Your task to perform on an android device: Open Google Image 0: 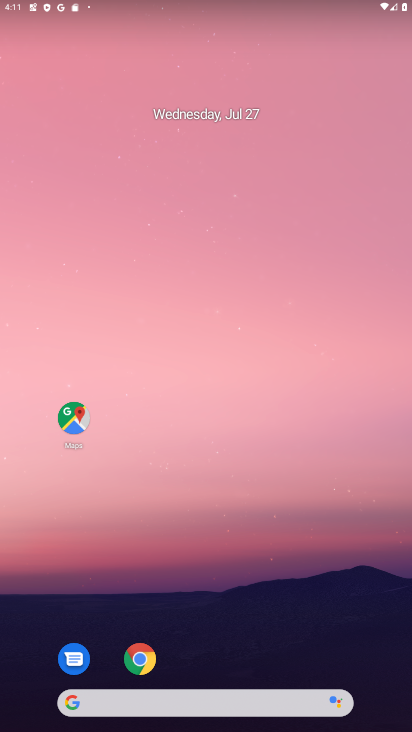
Step 0: press home button
Your task to perform on an android device: Open Google Image 1: 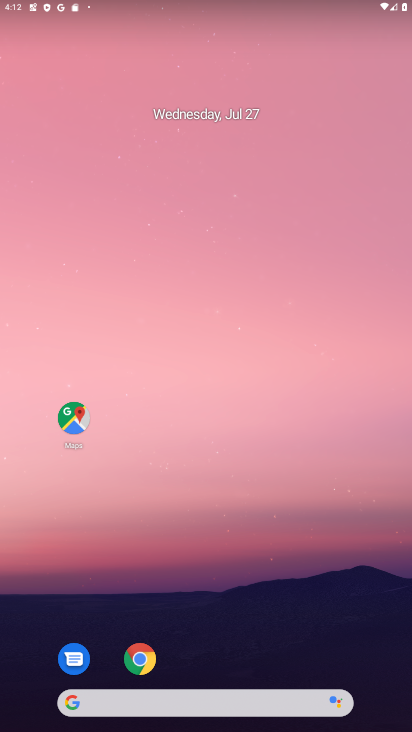
Step 1: drag from (214, 631) to (211, 33)
Your task to perform on an android device: Open Google Image 2: 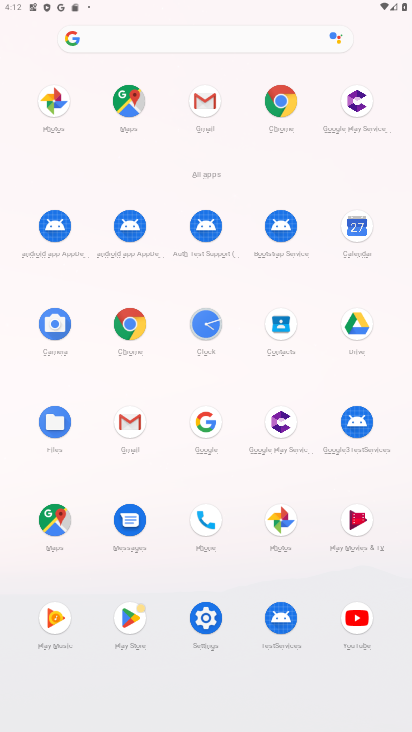
Step 2: click (211, 422)
Your task to perform on an android device: Open Google Image 3: 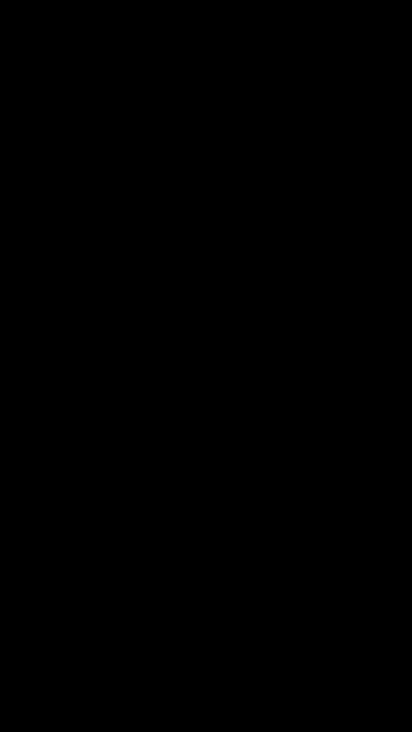
Step 3: task complete